Your task to perform on an android device: toggle translation in the chrome app Image 0: 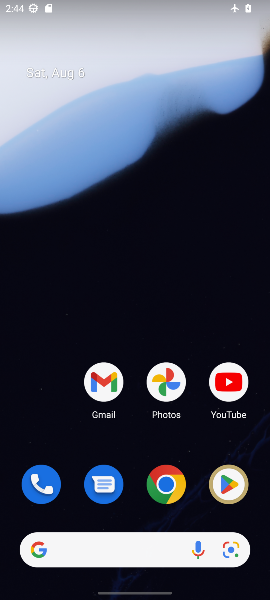
Step 0: press home button
Your task to perform on an android device: toggle translation in the chrome app Image 1: 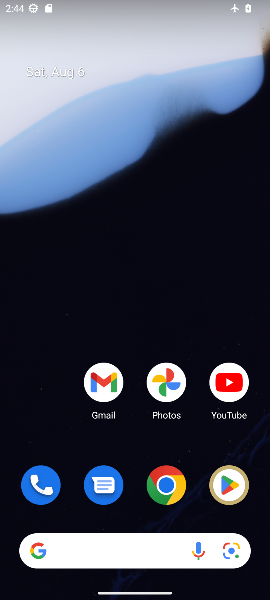
Step 1: click (170, 482)
Your task to perform on an android device: toggle translation in the chrome app Image 2: 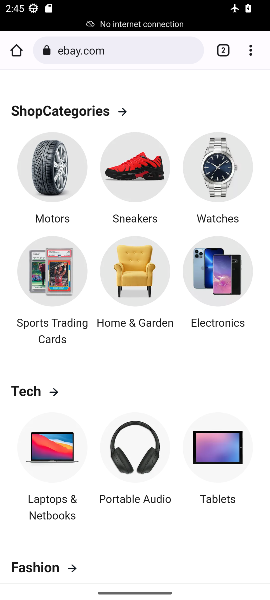
Step 2: click (250, 48)
Your task to perform on an android device: toggle translation in the chrome app Image 3: 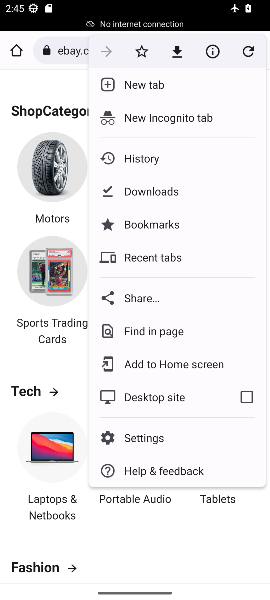
Step 3: click (164, 436)
Your task to perform on an android device: toggle translation in the chrome app Image 4: 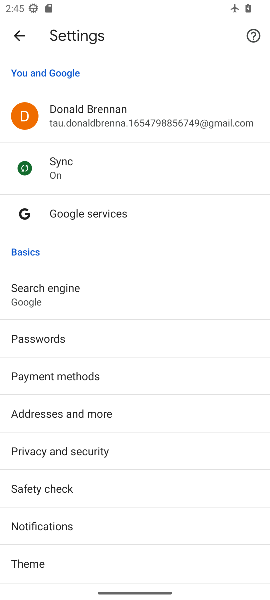
Step 4: drag from (132, 515) to (149, 52)
Your task to perform on an android device: toggle translation in the chrome app Image 5: 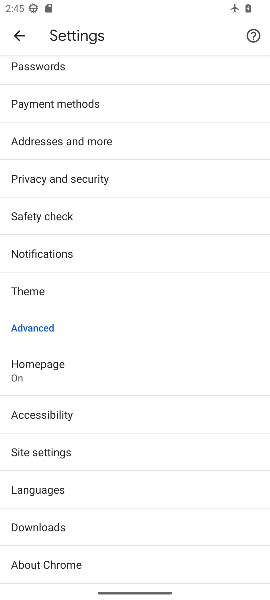
Step 5: click (70, 486)
Your task to perform on an android device: toggle translation in the chrome app Image 6: 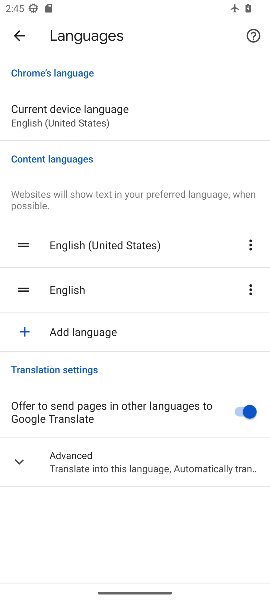
Step 6: click (241, 408)
Your task to perform on an android device: toggle translation in the chrome app Image 7: 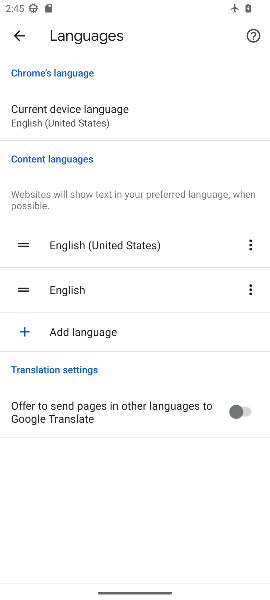
Step 7: task complete